Your task to perform on an android device: Turn on the flashlight Image 0: 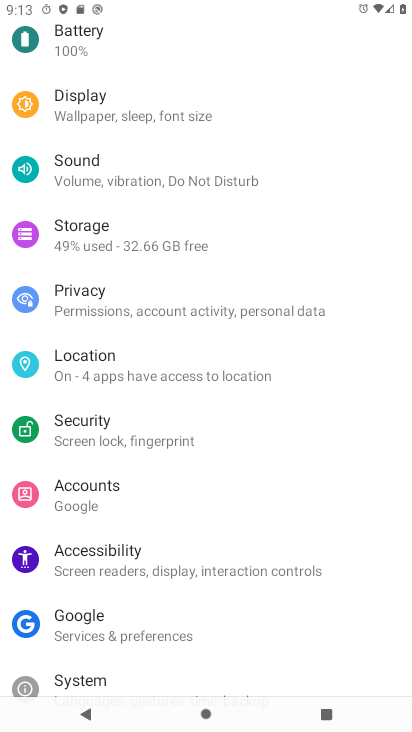
Step 0: drag from (350, 1) to (373, 504)
Your task to perform on an android device: Turn on the flashlight Image 1: 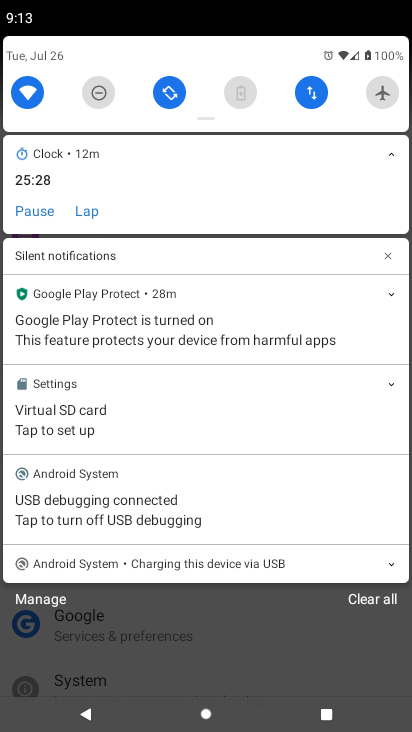
Step 1: drag from (212, 110) to (345, 639)
Your task to perform on an android device: Turn on the flashlight Image 2: 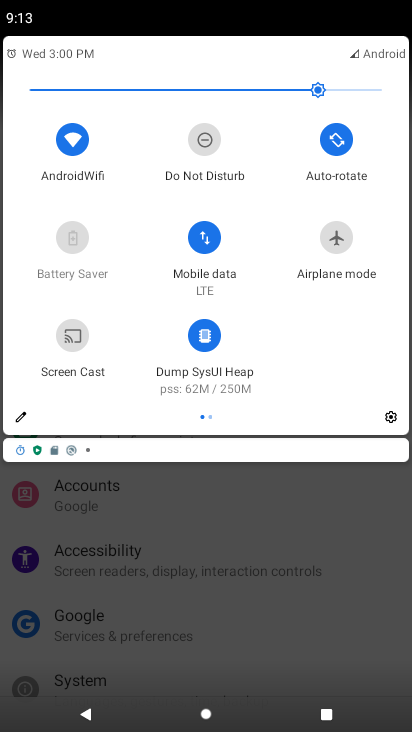
Step 2: click (19, 421)
Your task to perform on an android device: Turn on the flashlight Image 3: 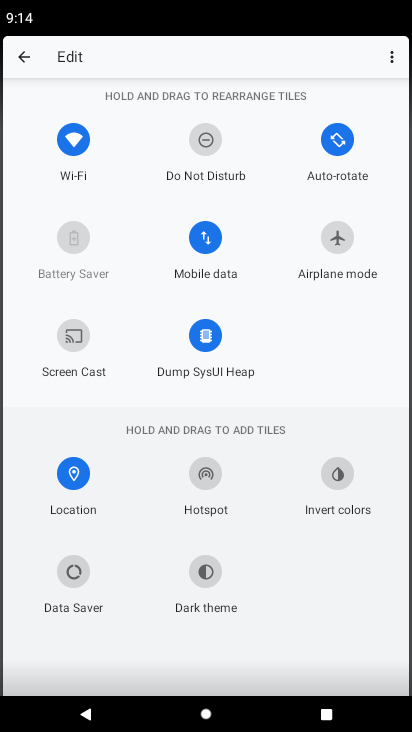
Step 3: task complete